Your task to perform on an android device: turn off translation in the chrome app Image 0: 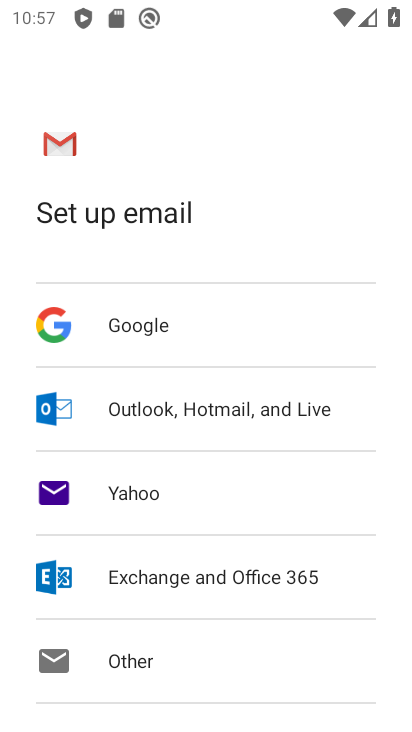
Step 0: press home button
Your task to perform on an android device: turn off translation in the chrome app Image 1: 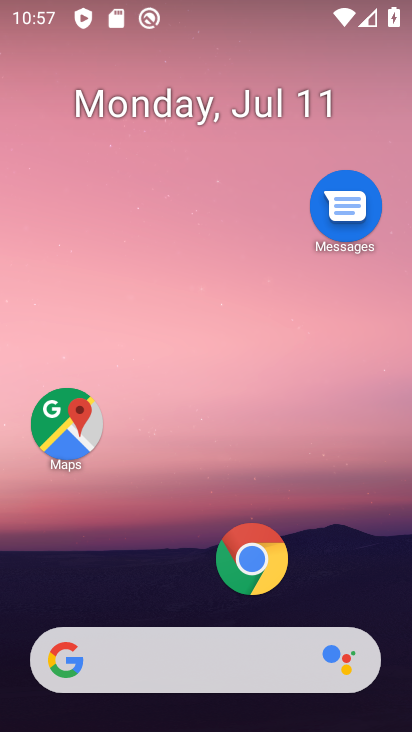
Step 1: drag from (381, 559) to (366, 102)
Your task to perform on an android device: turn off translation in the chrome app Image 2: 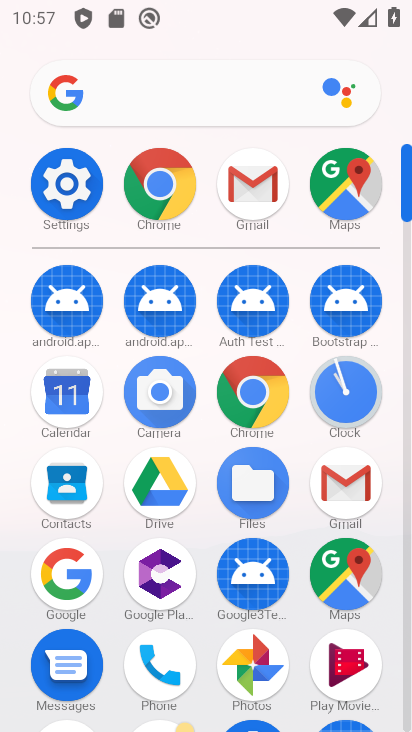
Step 2: click (254, 392)
Your task to perform on an android device: turn off translation in the chrome app Image 3: 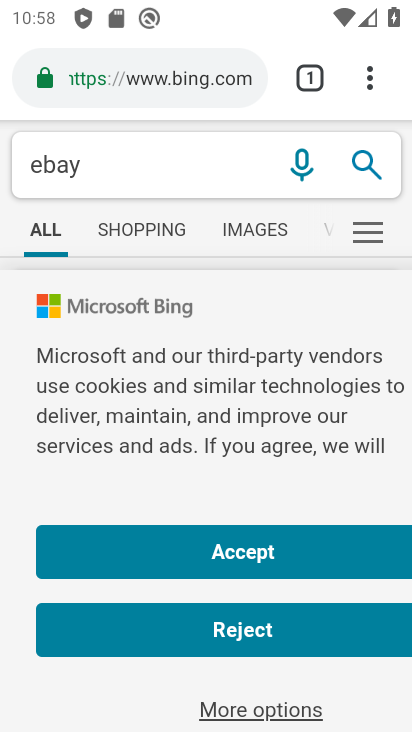
Step 3: click (373, 83)
Your task to perform on an android device: turn off translation in the chrome app Image 4: 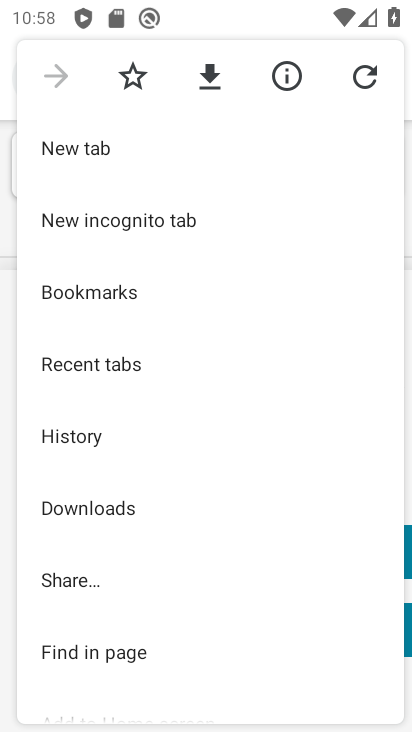
Step 4: drag from (308, 409) to (299, 239)
Your task to perform on an android device: turn off translation in the chrome app Image 5: 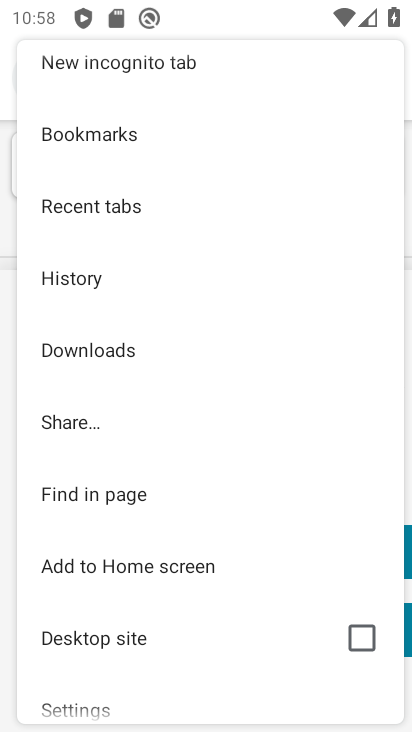
Step 5: drag from (303, 423) to (304, 226)
Your task to perform on an android device: turn off translation in the chrome app Image 6: 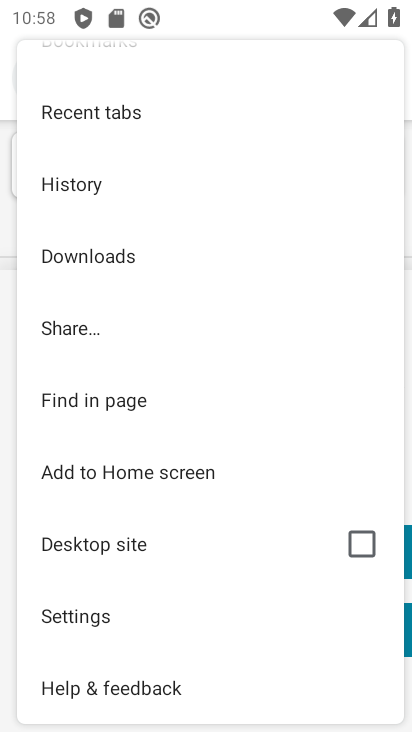
Step 6: drag from (303, 201) to (303, 460)
Your task to perform on an android device: turn off translation in the chrome app Image 7: 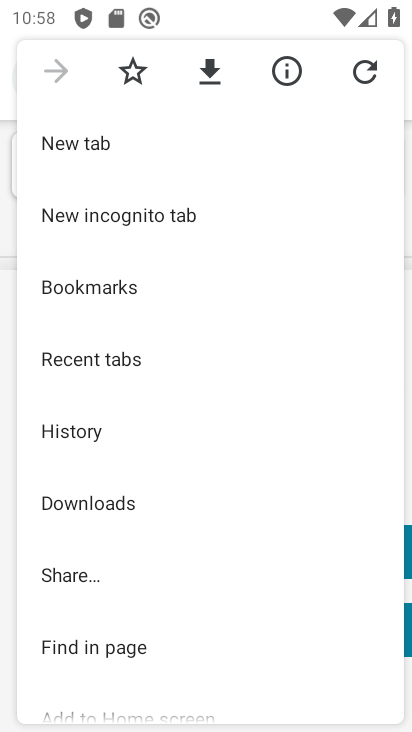
Step 7: drag from (285, 429) to (291, 312)
Your task to perform on an android device: turn off translation in the chrome app Image 8: 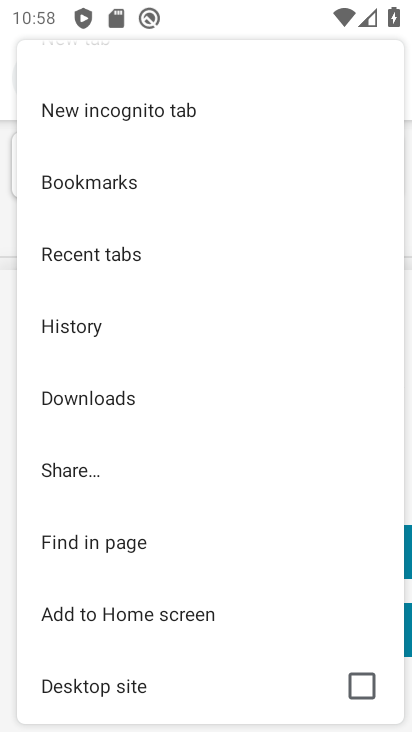
Step 8: drag from (285, 587) to (269, 392)
Your task to perform on an android device: turn off translation in the chrome app Image 9: 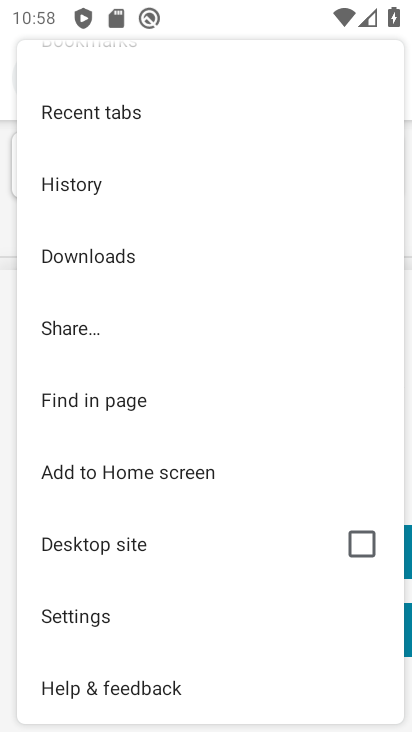
Step 9: click (149, 618)
Your task to perform on an android device: turn off translation in the chrome app Image 10: 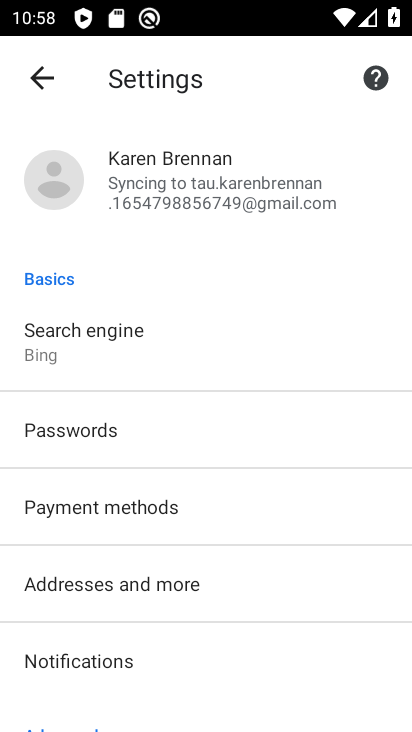
Step 10: drag from (257, 569) to (262, 472)
Your task to perform on an android device: turn off translation in the chrome app Image 11: 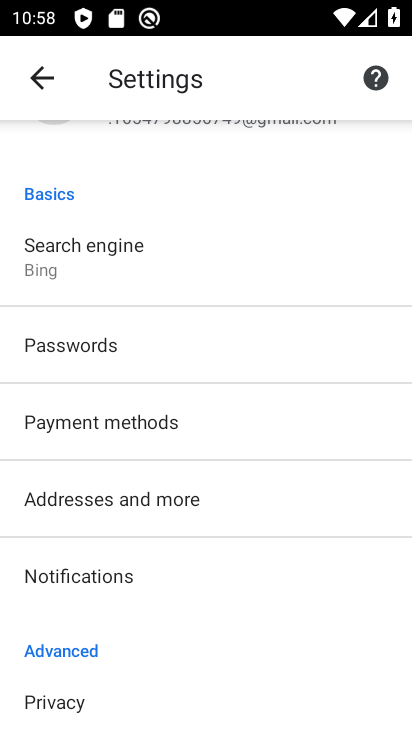
Step 11: drag from (270, 587) to (272, 395)
Your task to perform on an android device: turn off translation in the chrome app Image 12: 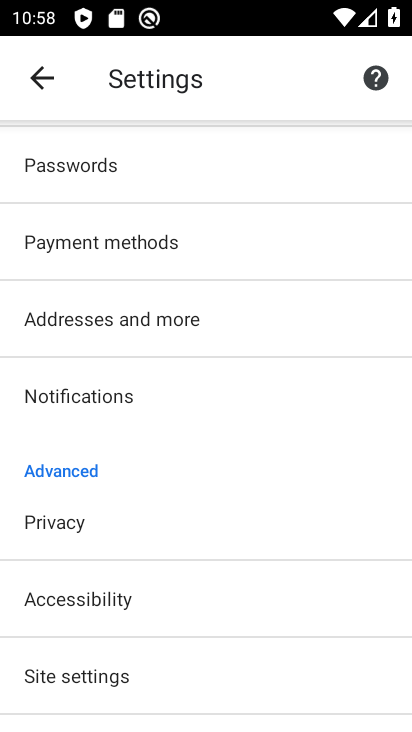
Step 12: drag from (289, 529) to (320, 226)
Your task to perform on an android device: turn off translation in the chrome app Image 13: 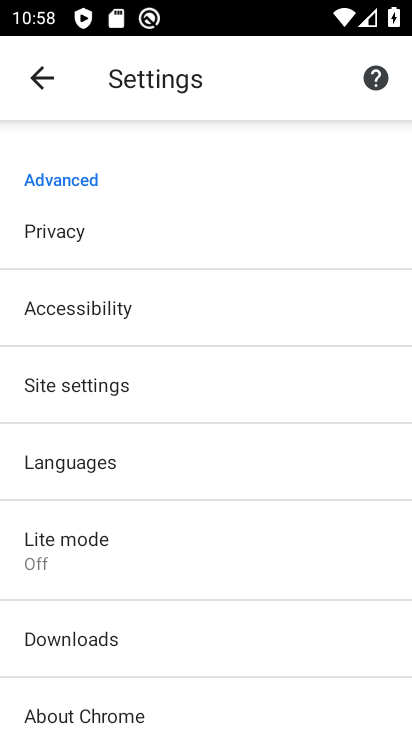
Step 13: click (223, 452)
Your task to perform on an android device: turn off translation in the chrome app Image 14: 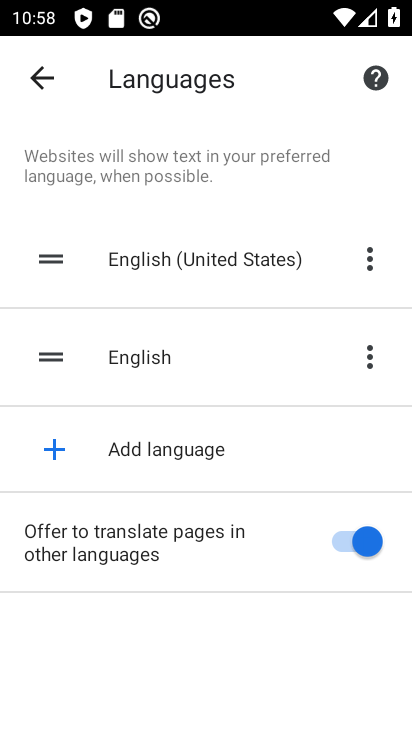
Step 14: click (348, 551)
Your task to perform on an android device: turn off translation in the chrome app Image 15: 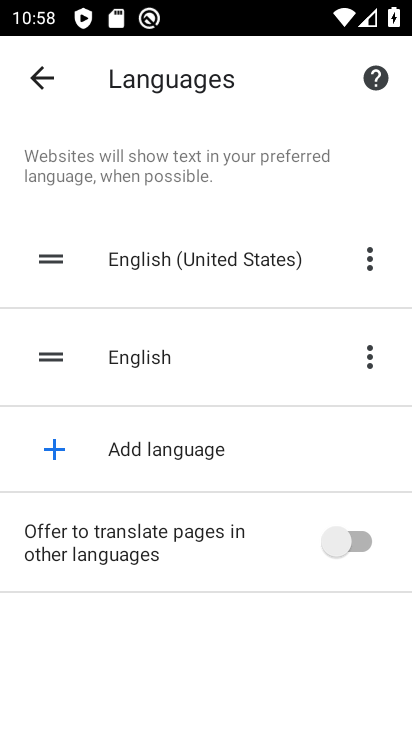
Step 15: task complete